Your task to perform on an android device: Do I have any events tomorrow? Image 0: 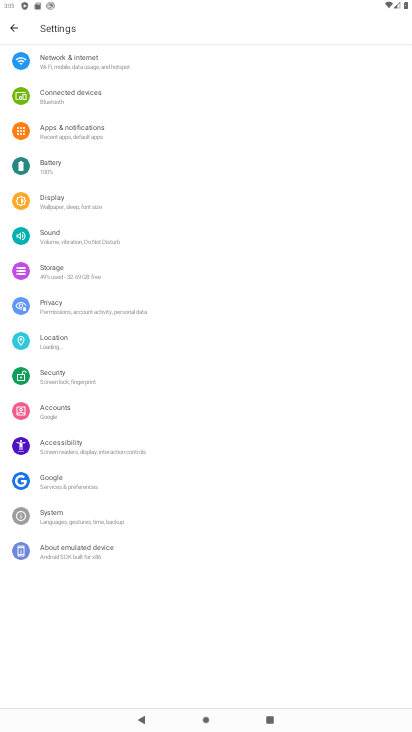
Step 0: press home button
Your task to perform on an android device: Do I have any events tomorrow? Image 1: 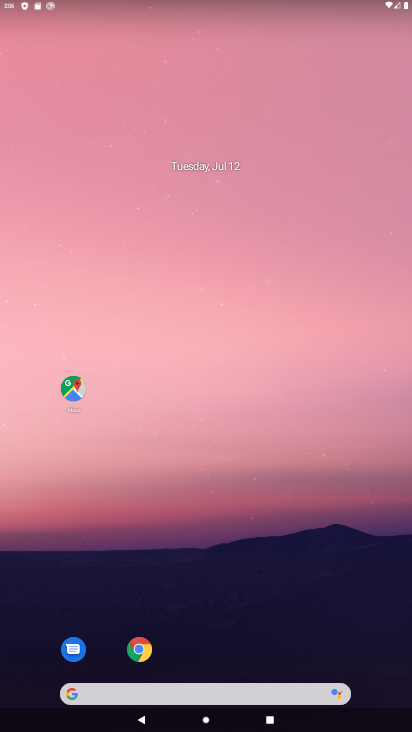
Step 1: drag from (176, 666) to (168, 186)
Your task to perform on an android device: Do I have any events tomorrow? Image 2: 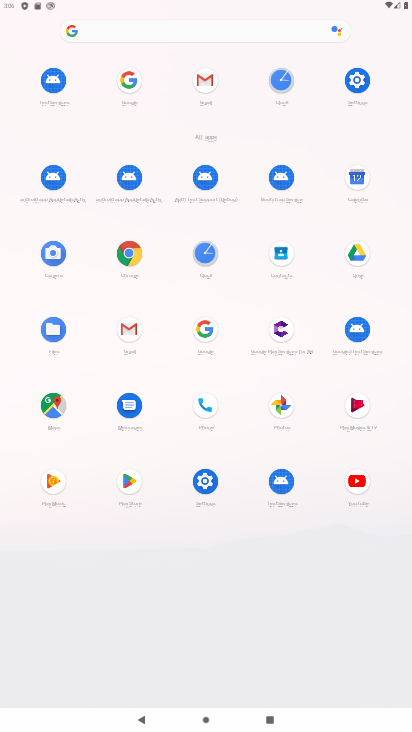
Step 2: click (360, 190)
Your task to perform on an android device: Do I have any events tomorrow? Image 3: 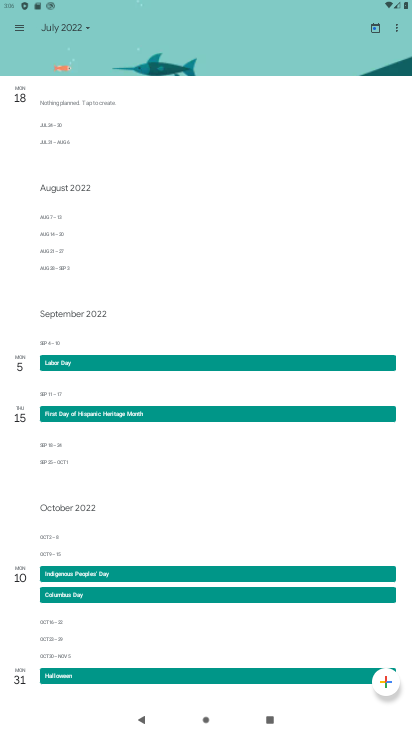
Step 3: click (74, 23)
Your task to perform on an android device: Do I have any events tomorrow? Image 4: 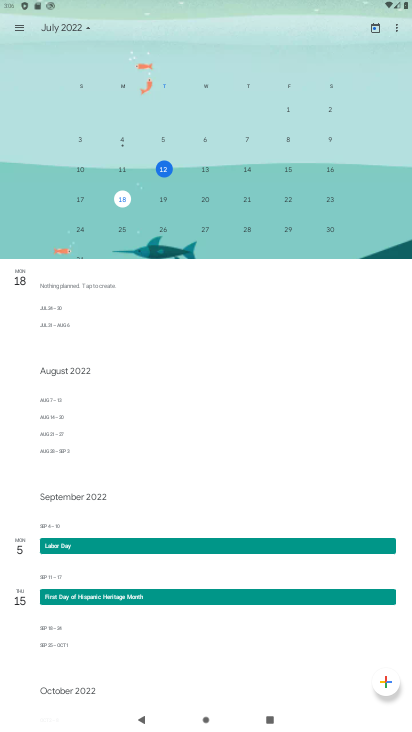
Step 4: click (206, 171)
Your task to perform on an android device: Do I have any events tomorrow? Image 5: 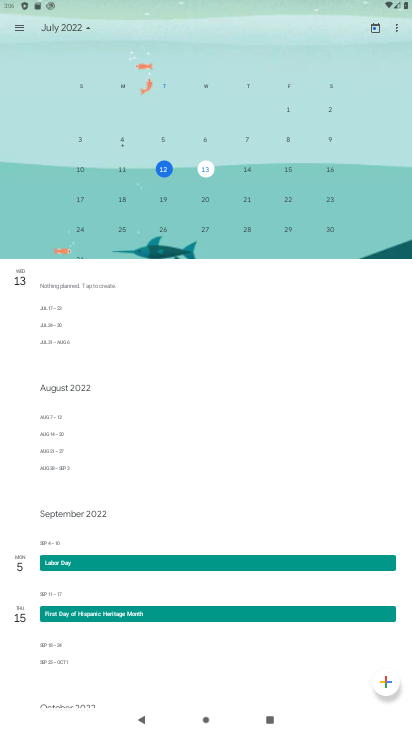
Step 5: task complete